Your task to perform on an android device: turn off data saver in the chrome app Image 0: 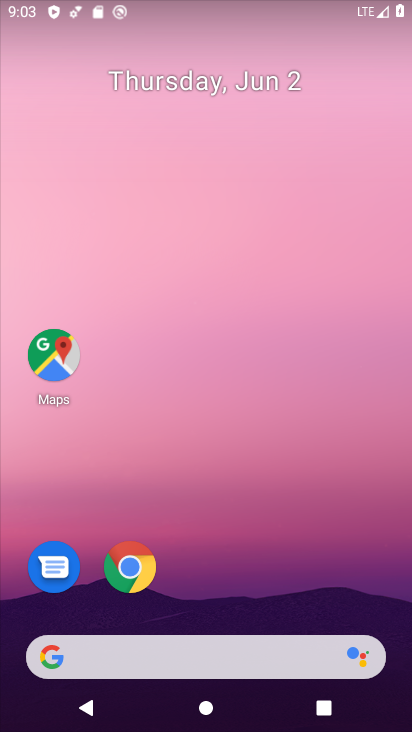
Step 0: drag from (282, 567) to (310, 148)
Your task to perform on an android device: turn off data saver in the chrome app Image 1: 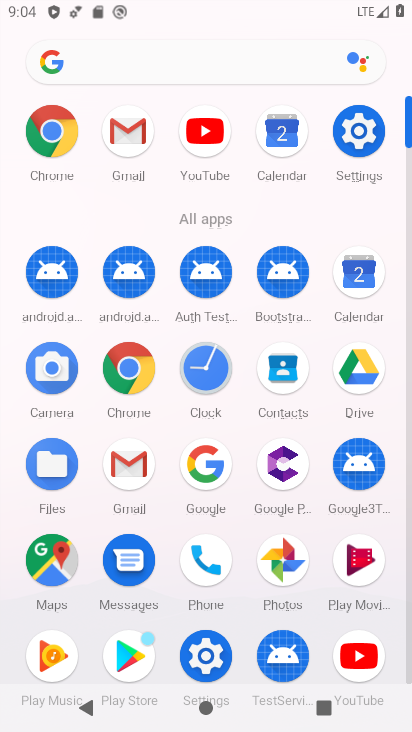
Step 1: click (105, 389)
Your task to perform on an android device: turn off data saver in the chrome app Image 2: 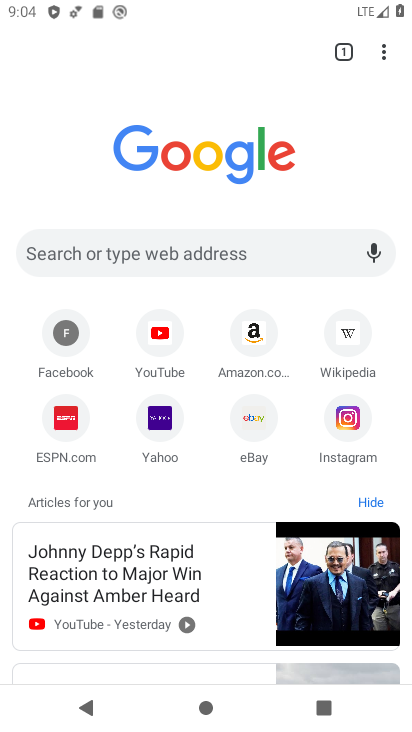
Step 2: task complete